Your task to perform on an android device: turn on showing notifications on the lock screen Image 0: 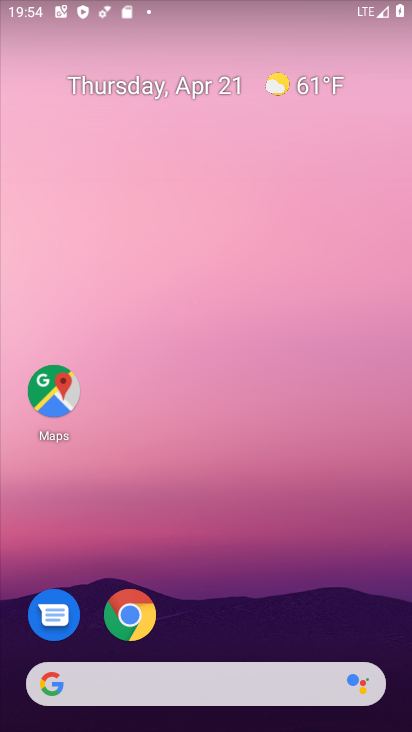
Step 0: drag from (184, 629) to (153, 0)
Your task to perform on an android device: turn on showing notifications on the lock screen Image 1: 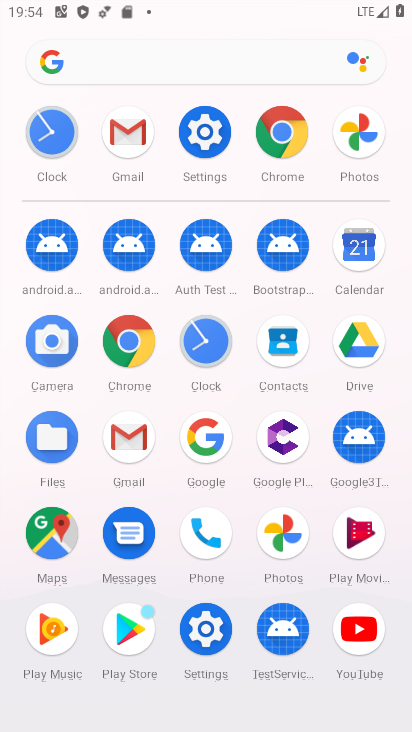
Step 1: click (207, 619)
Your task to perform on an android device: turn on showing notifications on the lock screen Image 2: 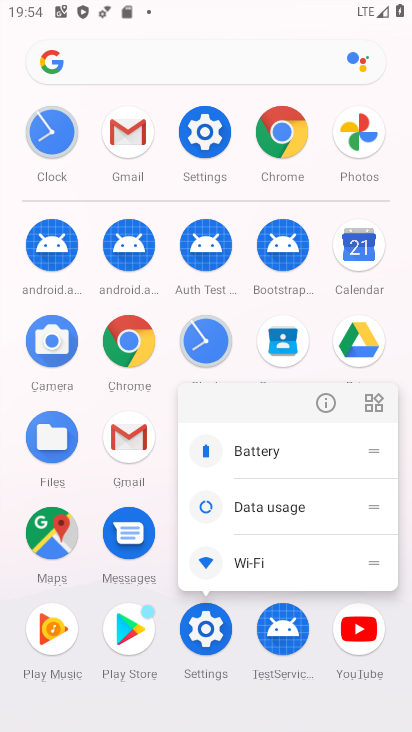
Step 2: click (318, 406)
Your task to perform on an android device: turn on showing notifications on the lock screen Image 3: 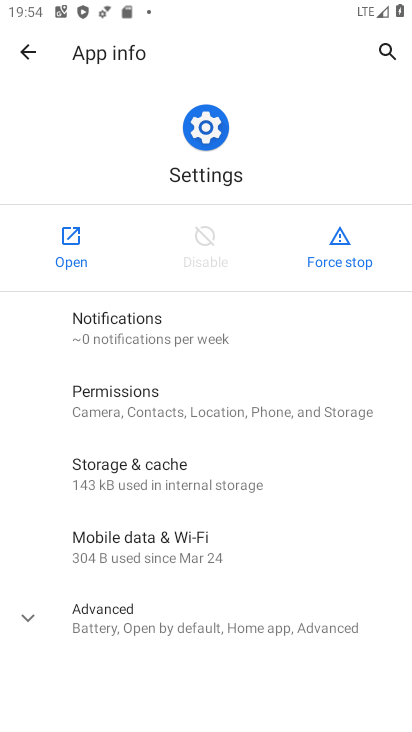
Step 3: click (73, 237)
Your task to perform on an android device: turn on showing notifications on the lock screen Image 4: 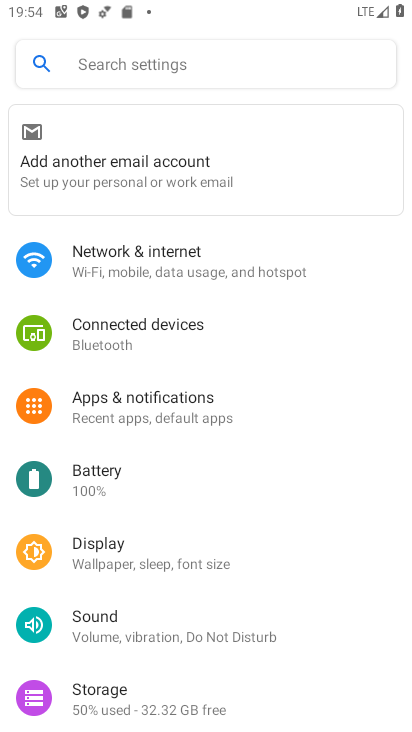
Step 4: click (226, 407)
Your task to perform on an android device: turn on showing notifications on the lock screen Image 5: 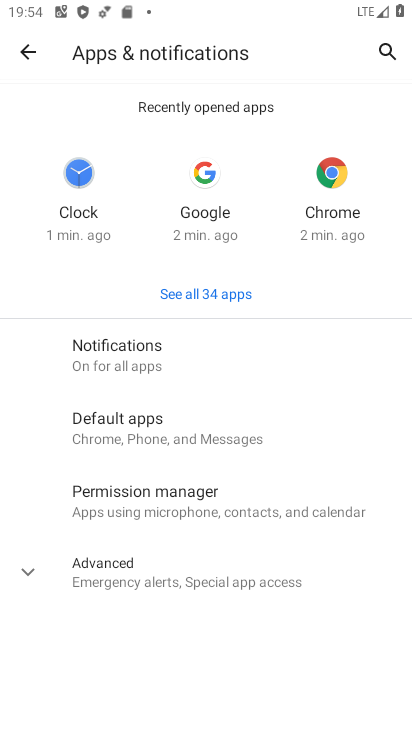
Step 5: click (169, 358)
Your task to perform on an android device: turn on showing notifications on the lock screen Image 6: 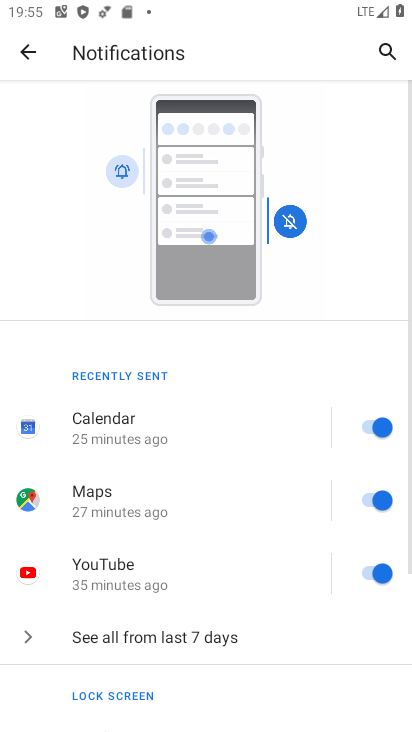
Step 6: drag from (198, 558) to (281, 96)
Your task to perform on an android device: turn on showing notifications on the lock screen Image 7: 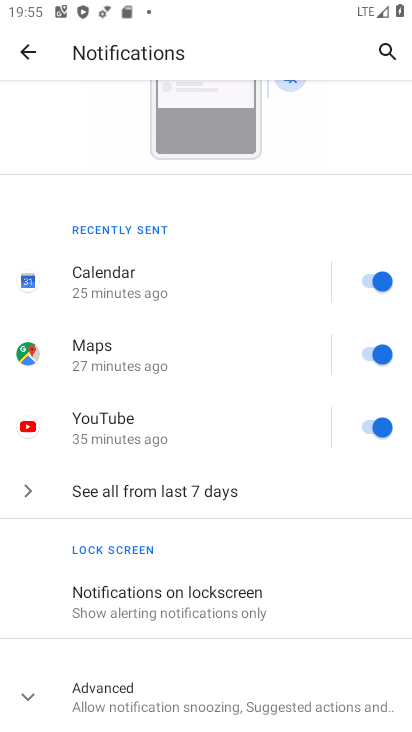
Step 7: click (159, 608)
Your task to perform on an android device: turn on showing notifications on the lock screen Image 8: 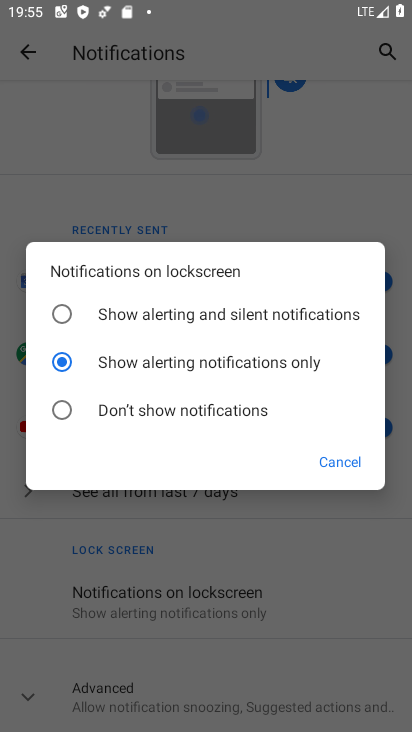
Step 8: task complete